Your task to perform on an android device: turn on the 24-hour format for clock Image 0: 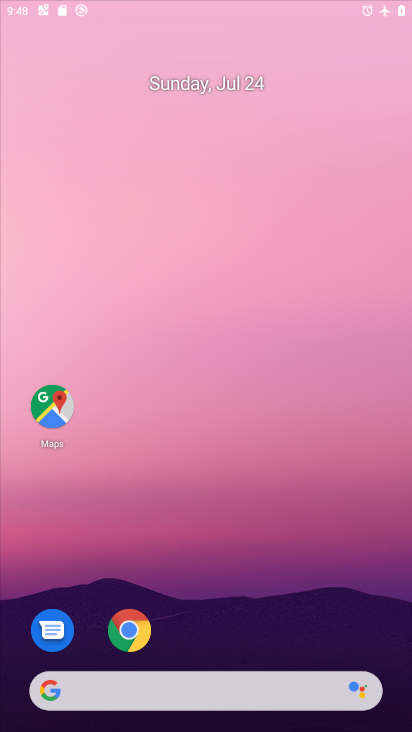
Step 0: click (255, 30)
Your task to perform on an android device: turn on the 24-hour format for clock Image 1: 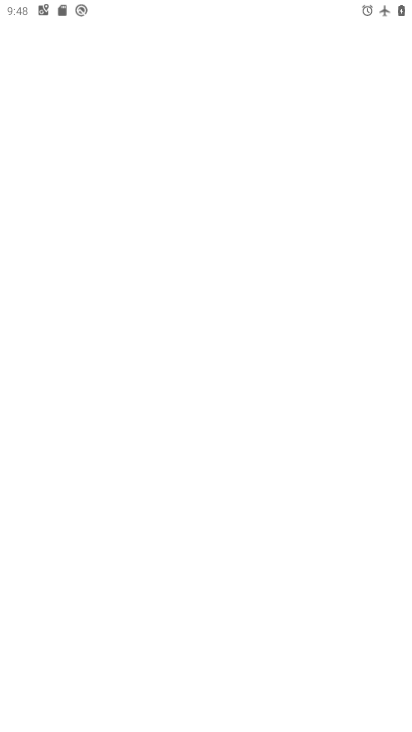
Step 1: press home button
Your task to perform on an android device: turn on the 24-hour format for clock Image 2: 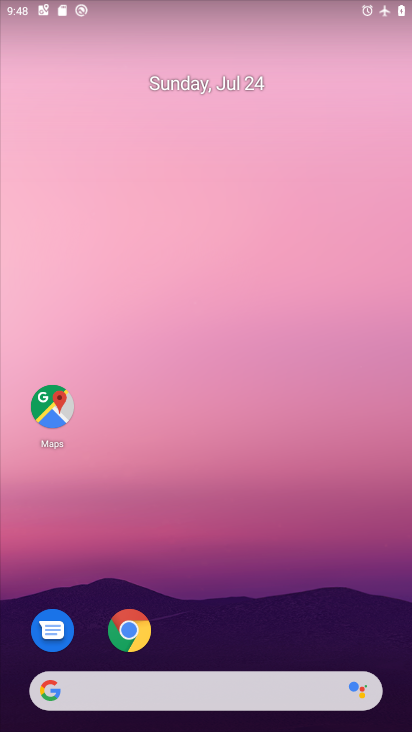
Step 2: drag from (296, 642) to (294, 199)
Your task to perform on an android device: turn on the 24-hour format for clock Image 3: 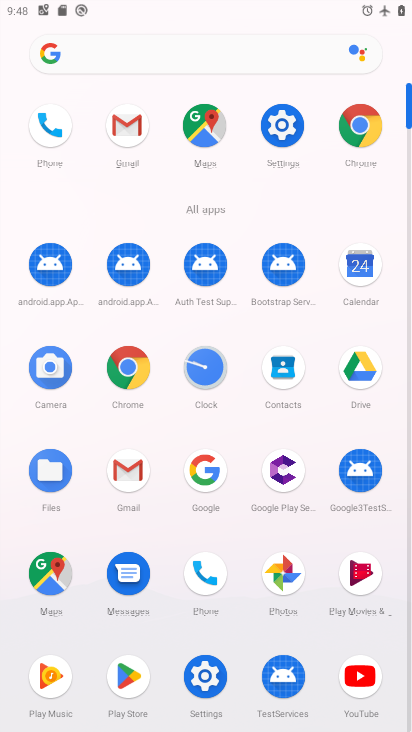
Step 3: click (208, 359)
Your task to perform on an android device: turn on the 24-hour format for clock Image 4: 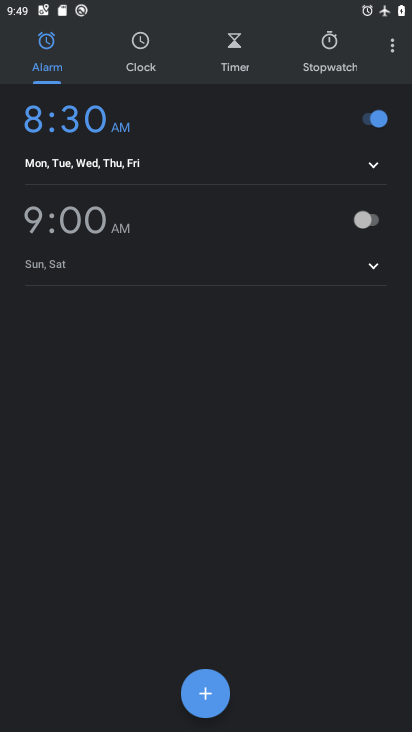
Step 4: click (402, 47)
Your task to perform on an android device: turn on the 24-hour format for clock Image 5: 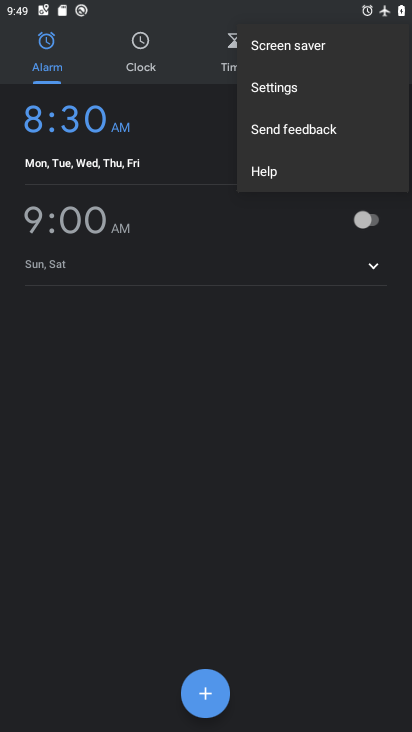
Step 5: click (288, 92)
Your task to perform on an android device: turn on the 24-hour format for clock Image 6: 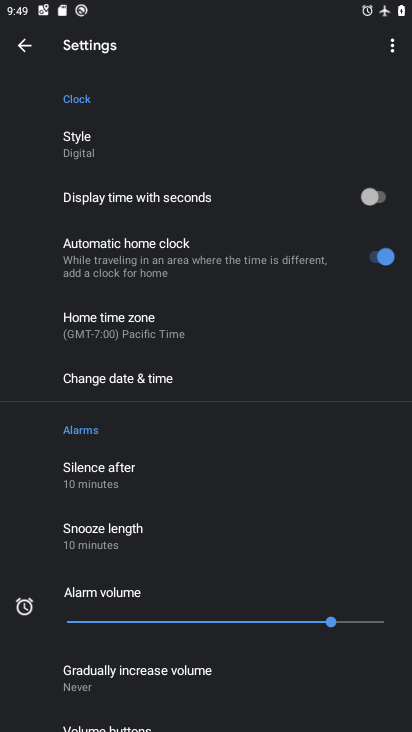
Step 6: click (141, 363)
Your task to perform on an android device: turn on the 24-hour format for clock Image 7: 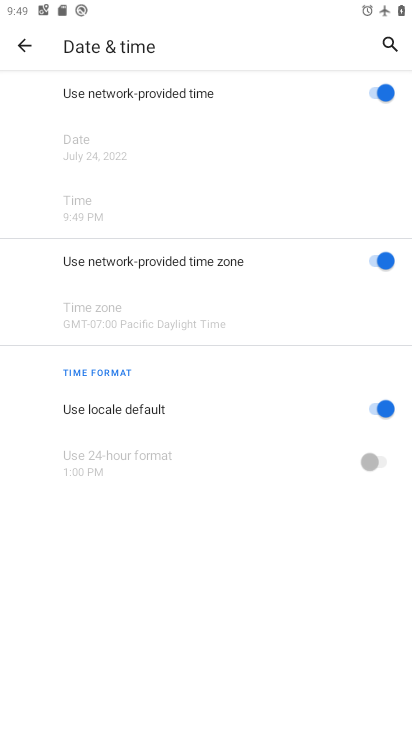
Step 7: click (362, 448)
Your task to perform on an android device: turn on the 24-hour format for clock Image 8: 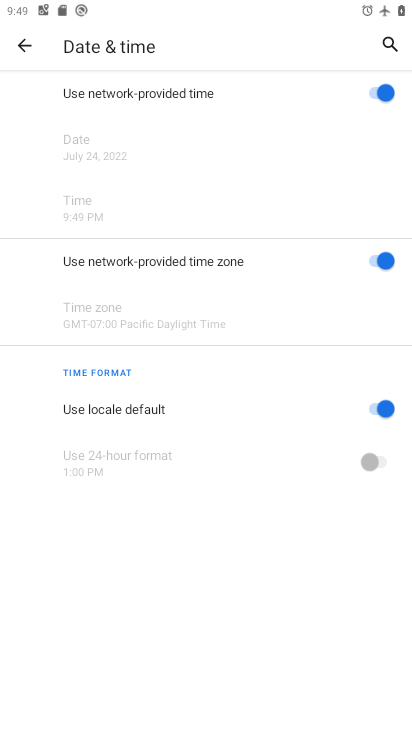
Step 8: click (386, 400)
Your task to perform on an android device: turn on the 24-hour format for clock Image 9: 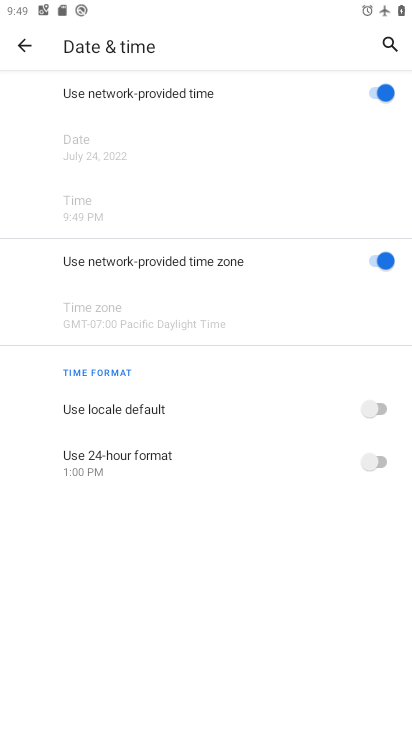
Step 9: click (363, 464)
Your task to perform on an android device: turn on the 24-hour format for clock Image 10: 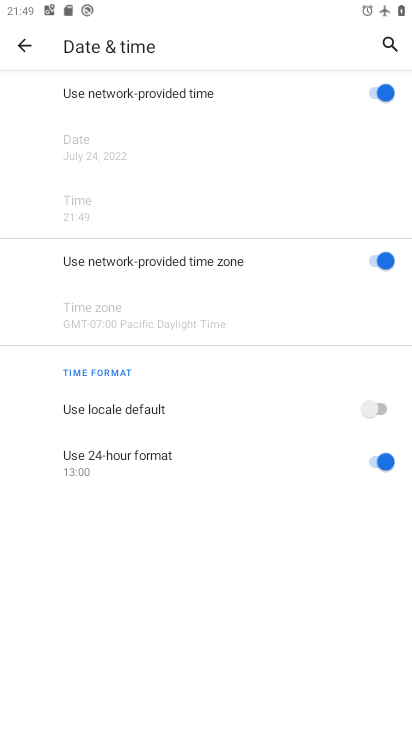
Step 10: task complete